Your task to perform on an android device: When is my next meeting? Image 0: 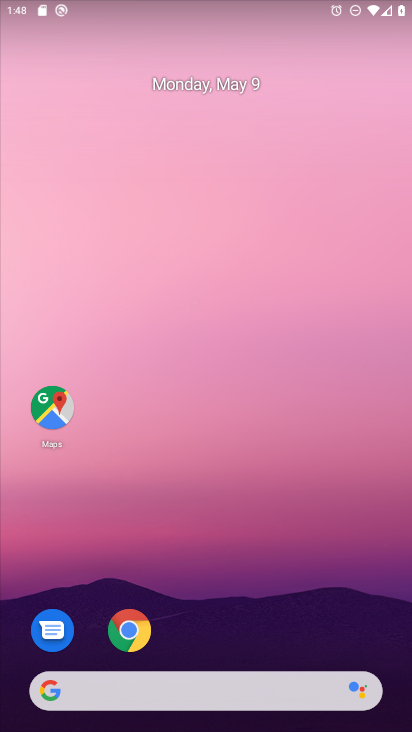
Step 0: drag from (250, 699) to (393, 157)
Your task to perform on an android device: When is my next meeting? Image 1: 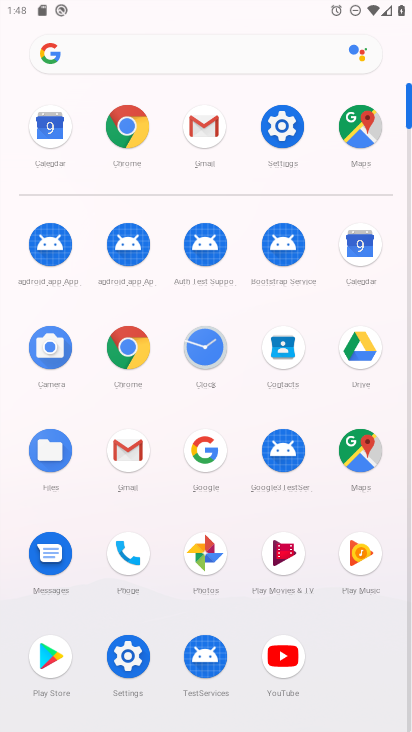
Step 1: click (353, 250)
Your task to perform on an android device: When is my next meeting? Image 2: 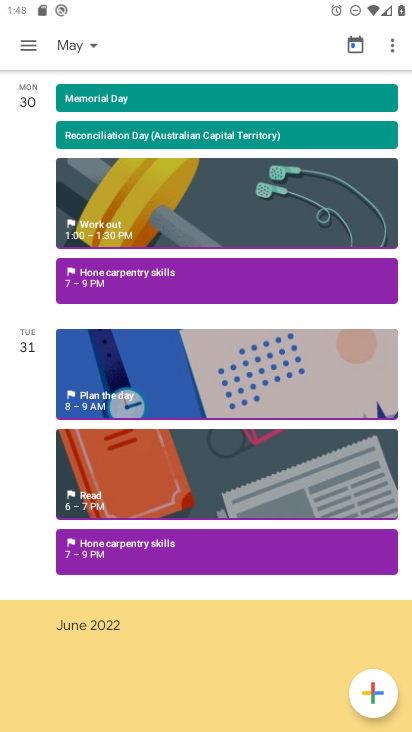
Step 2: click (20, 63)
Your task to perform on an android device: When is my next meeting? Image 3: 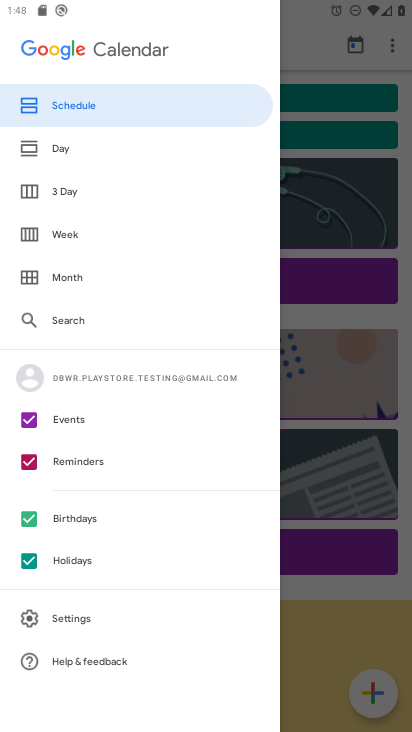
Step 3: click (95, 102)
Your task to perform on an android device: When is my next meeting? Image 4: 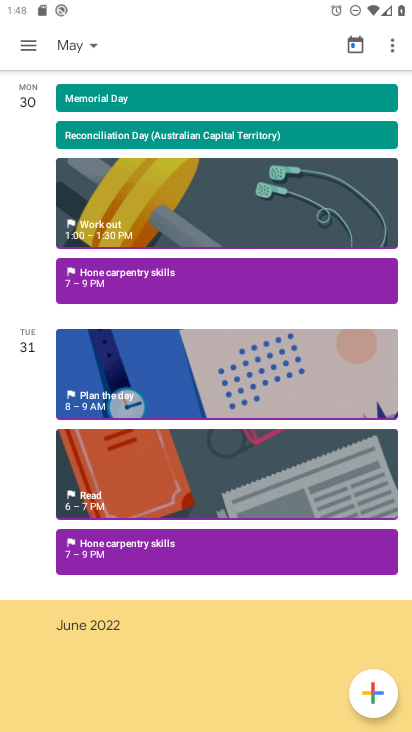
Step 4: click (29, 41)
Your task to perform on an android device: When is my next meeting? Image 5: 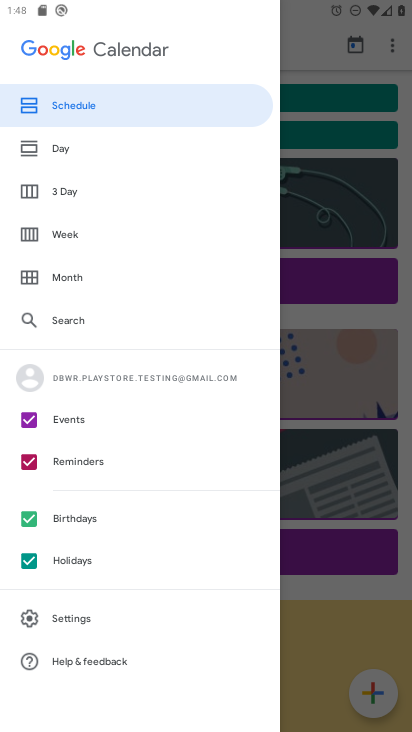
Step 5: click (64, 273)
Your task to perform on an android device: When is my next meeting? Image 6: 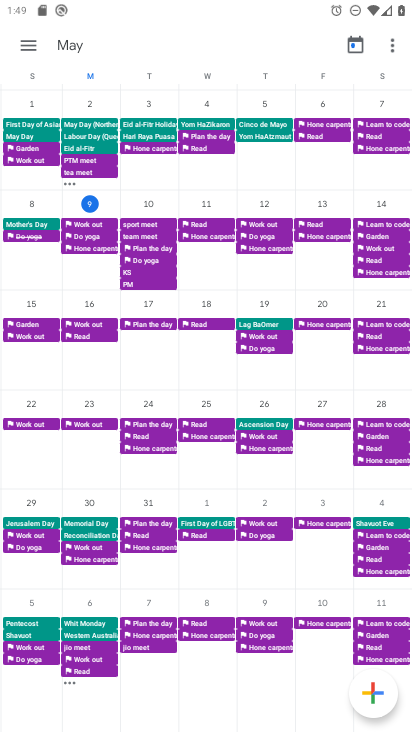
Step 6: click (94, 223)
Your task to perform on an android device: When is my next meeting? Image 7: 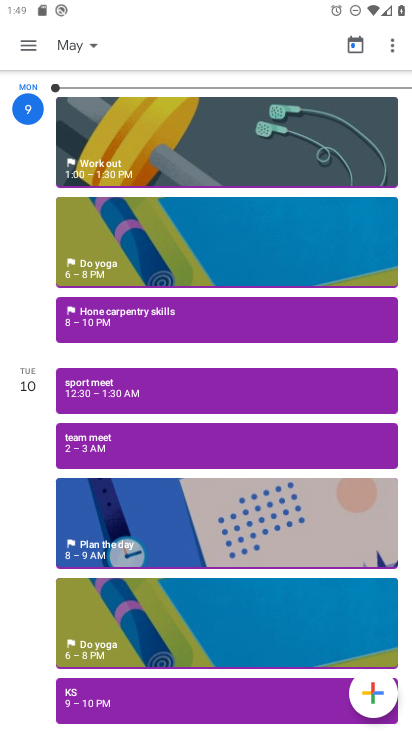
Step 7: task complete